Your task to perform on an android device: change notification settings in the gmail app Image 0: 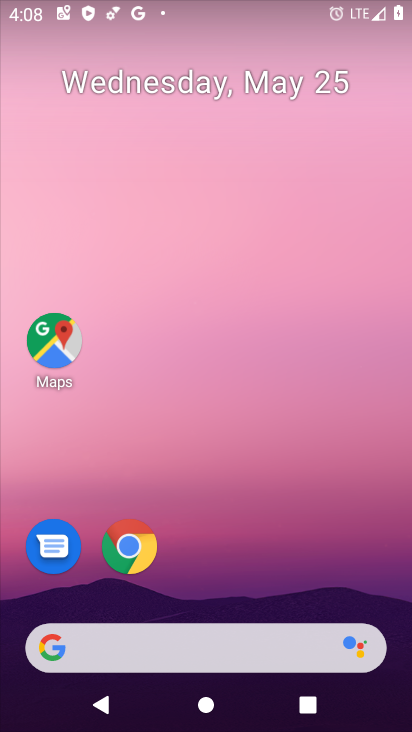
Step 0: drag from (266, 586) to (325, 11)
Your task to perform on an android device: change notification settings in the gmail app Image 1: 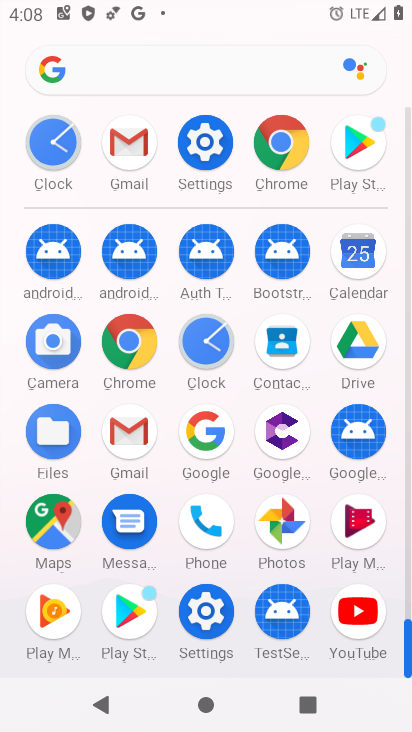
Step 1: click (122, 433)
Your task to perform on an android device: change notification settings in the gmail app Image 2: 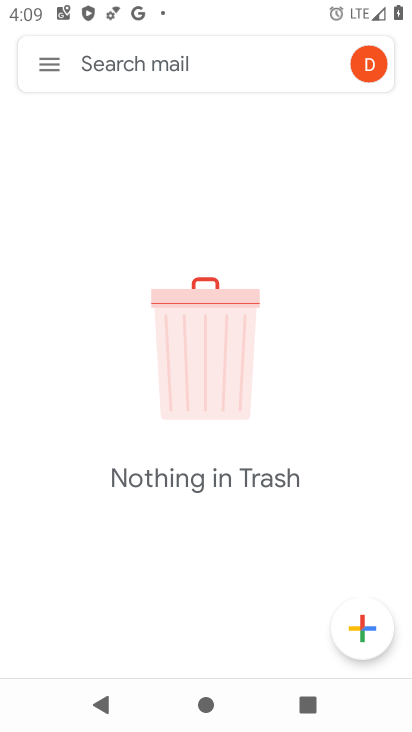
Step 2: click (48, 70)
Your task to perform on an android device: change notification settings in the gmail app Image 3: 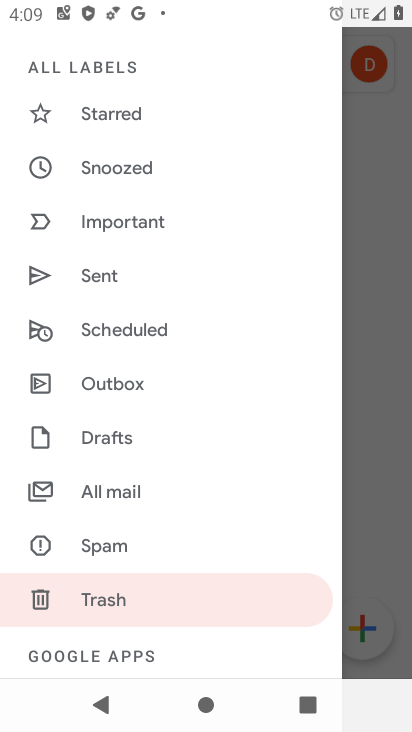
Step 3: drag from (137, 589) to (219, 282)
Your task to perform on an android device: change notification settings in the gmail app Image 4: 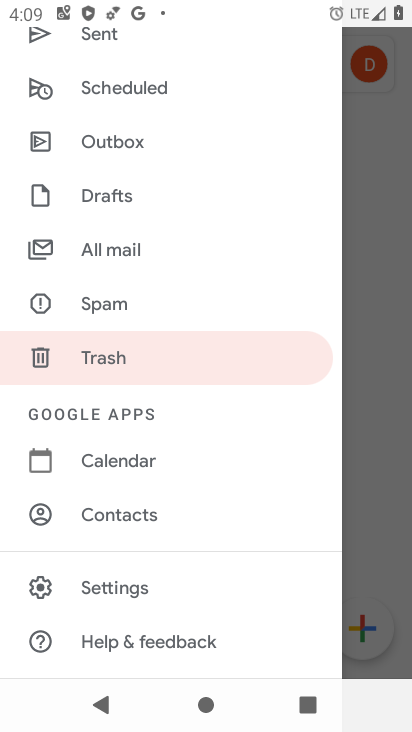
Step 4: click (120, 592)
Your task to perform on an android device: change notification settings in the gmail app Image 5: 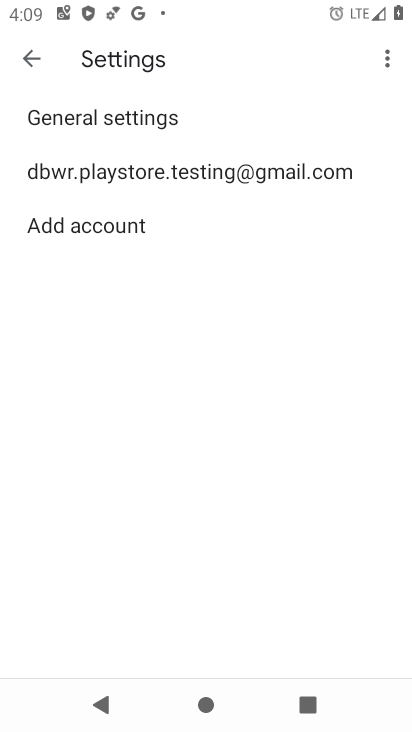
Step 5: click (167, 176)
Your task to perform on an android device: change notification settings in the gmail app Image 6: 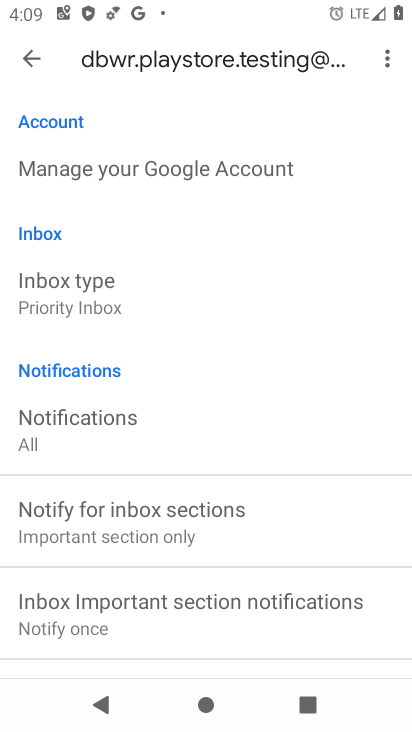
Step 6: drag from (142, 603) to (184, 332)
Your task to perform on an android device: change notification settings in the gmail app Image 7: 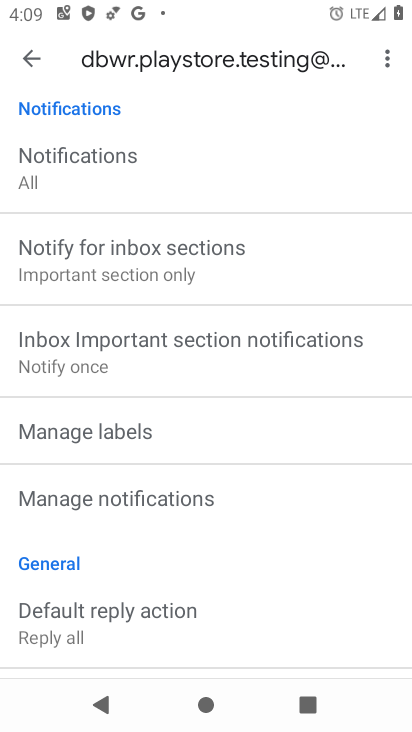
Step 7: click (101, 511)
Your task to perform on an android device: change notification settings in the gmail app Image 8: 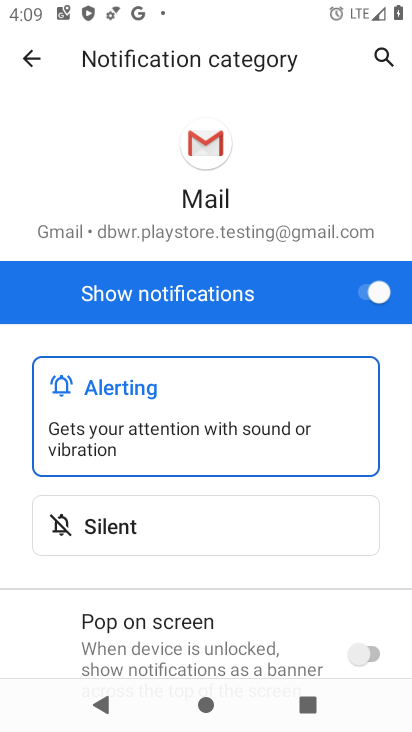
Step 8: click (365, 297)
Your task to perform on an android device: change notification settings in the gmail app Image 9: 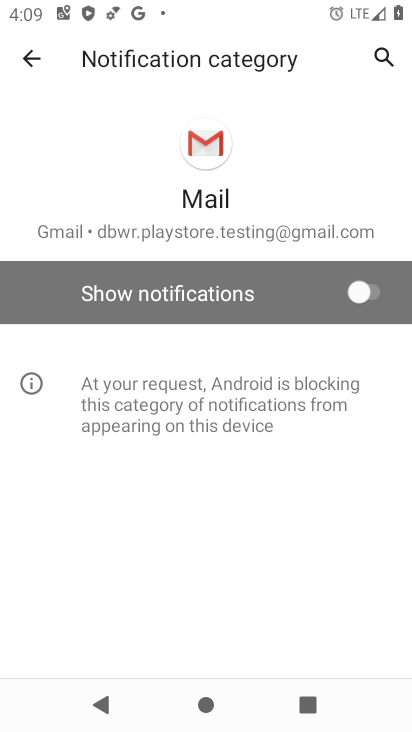
Step 9: task complete